Your task to perform on an android device: set the timer Image 0: 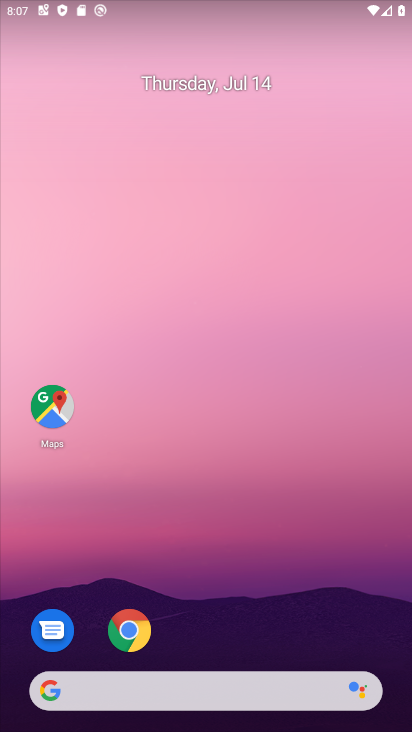
Step 0: drag from (229, 600) to (327, 1)
Your task to perform on an android device: set the timer Image 1: 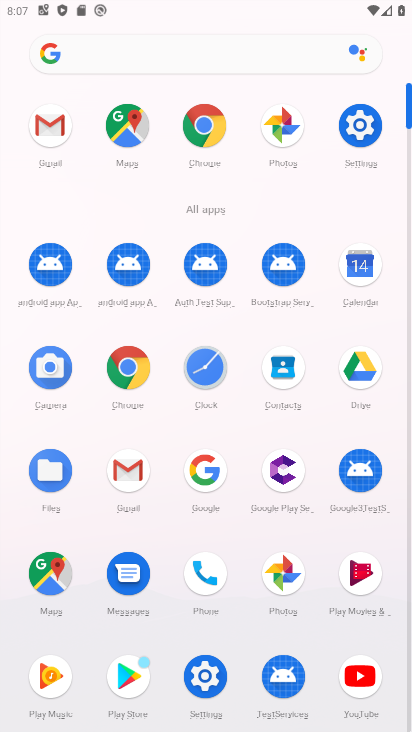
Step 1: click (197, 370)
Your task to perform on an android device: set the timer Image 2: 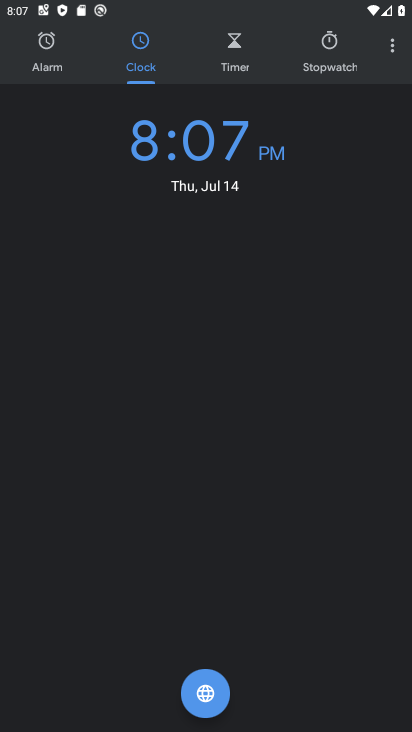
Step 2: click (245, 51)
Your task to perform on an android device: set the timer Image 3: 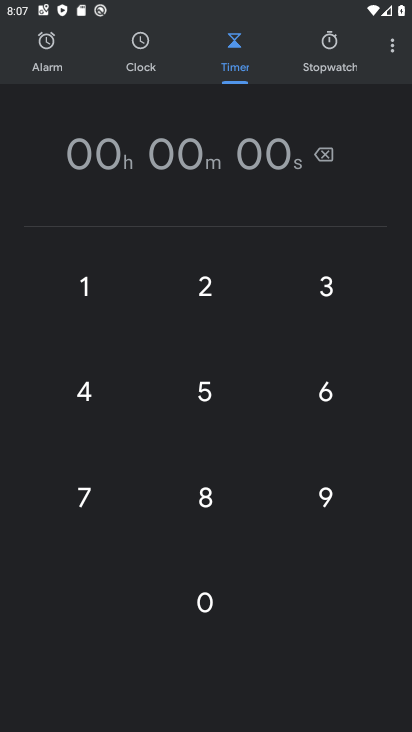
Step 3: click (217, 402)
Your task to perform on an android device: set the timer Image 4: 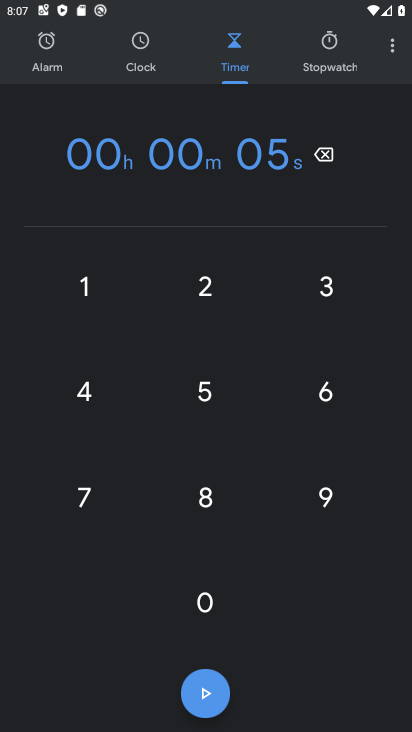
Step 4: click (217, 402)
Your task to perform on an android device: set the timer Image 5: 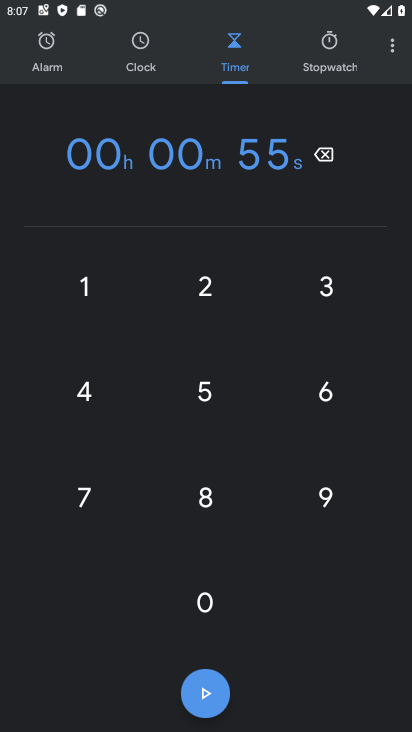
Step 5: click (217, 402)
Your task to perform on an android device: set the timer Image 6: 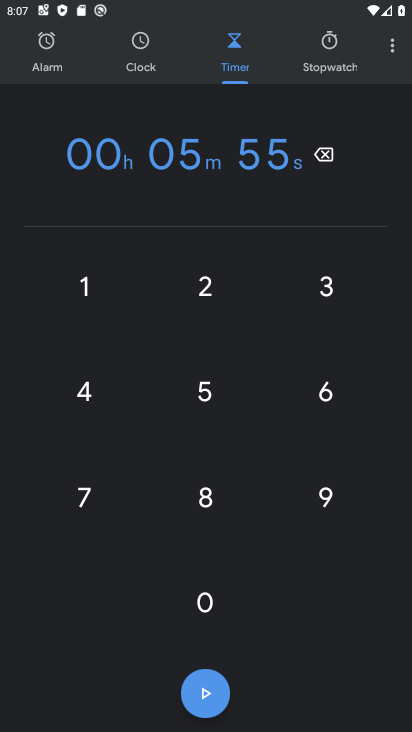
Step 6: click (217, 402)
Your task to perform on an android device: set the timer Image 7: 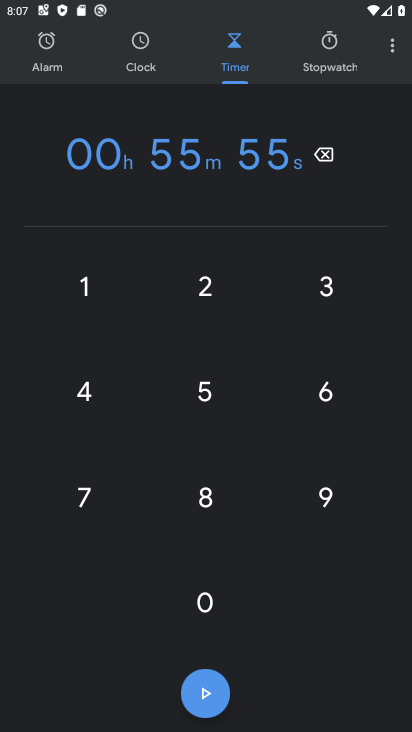
Step 7: click (217, 402)
Your task to perform on an android device: set the timer Image 8: 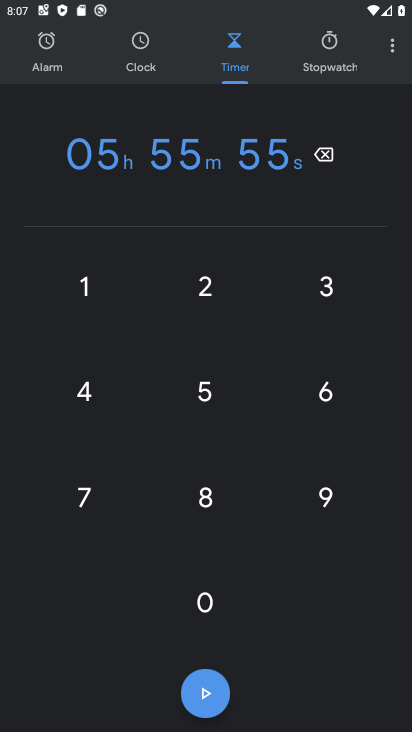
Step 8: click (215, 666)
Your task to perform on an android device: set the timer Image 9: 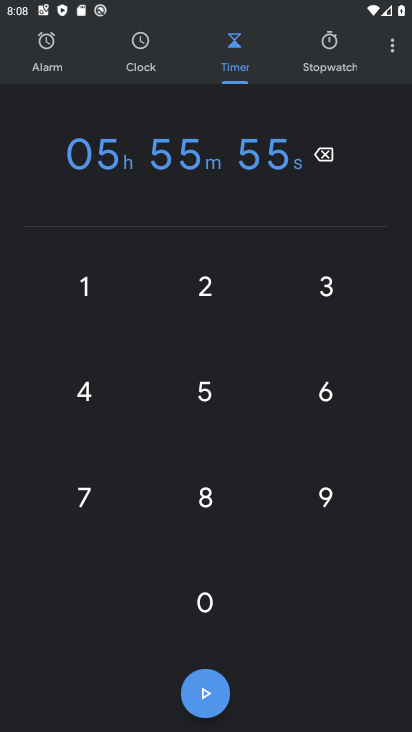
Step 9: click (206, 687)
Your task to perform on an android device: set the timer Image 10: 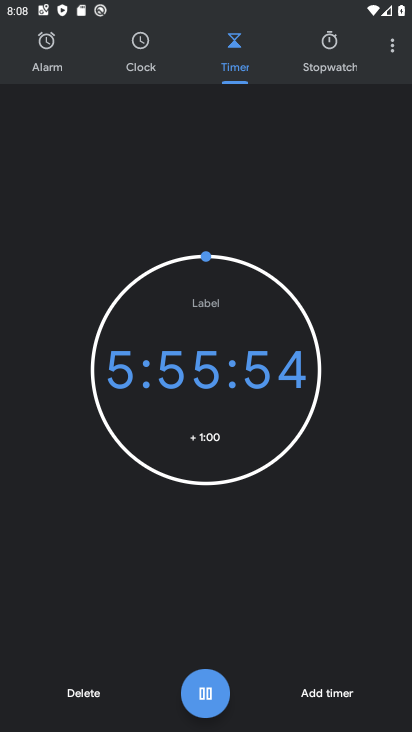
Step 10: task complete